Your task to perform on an android device: Open Google Chrome Image 0: 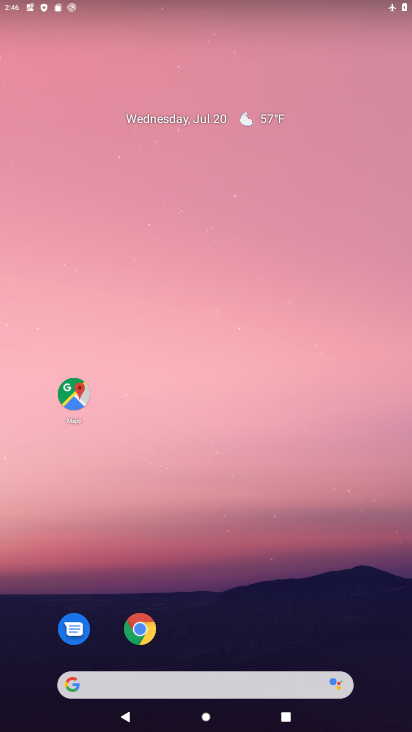
Step 0: click (153, 631)
Your task to perform on an android device: Open Google Chrome Image 1: 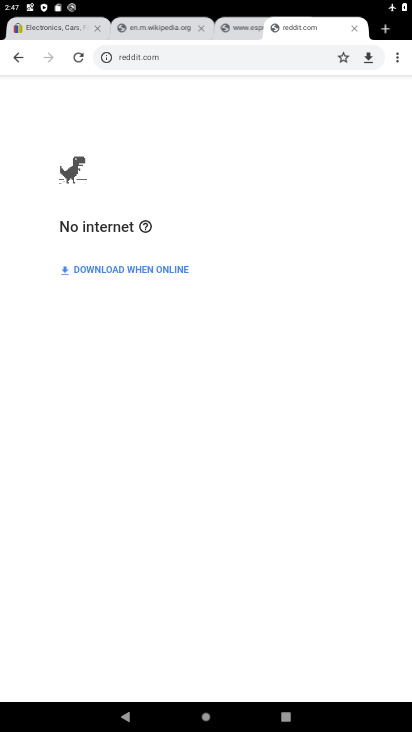
Step 1: task complete